Your task to perform on an android device: change the clock style Image 0: 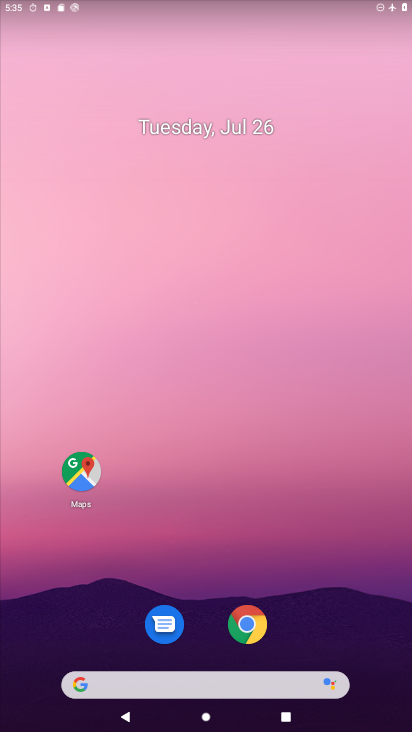
Step 0: drag from (209, 683) to (282, 11)
Your task to perform on an android device: change the clock style Image 1: 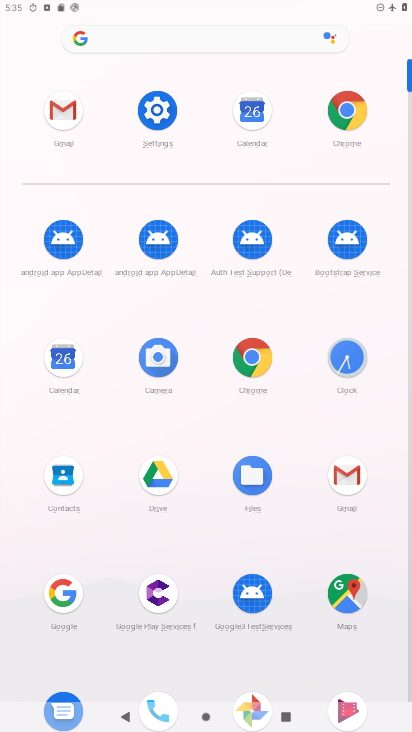
Step 1: click (339, 365)
Your task to perform on an android device: change the clock style Image 2: 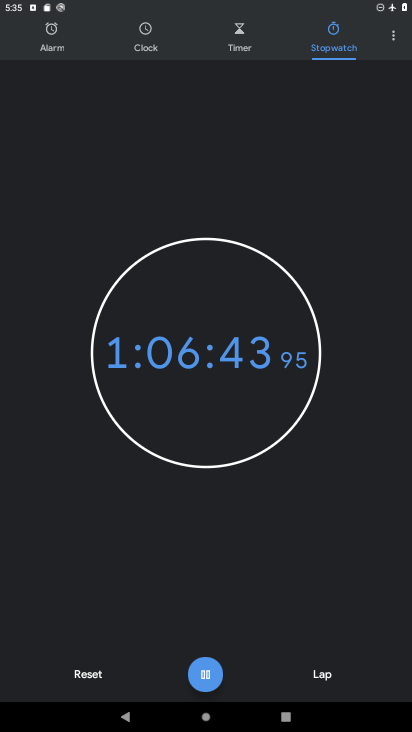
Step 2: click (396, 33)
Your task to perform on an android device: change the clock style Image 3: 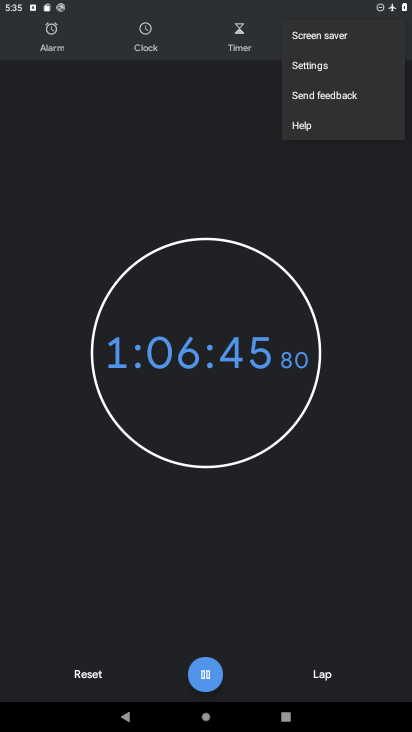
Step 3: click (321, 63)
Your task to perform on an android device: change the clock style Image 4: 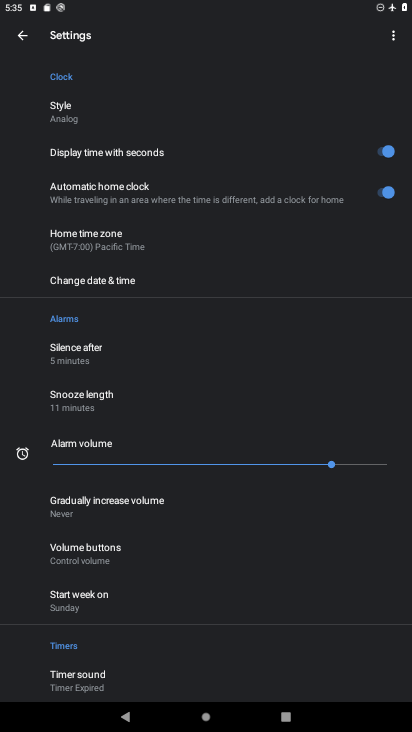
Step 4: click (100, 118)
Your task to perform on an android device: change the clock style Image 5: 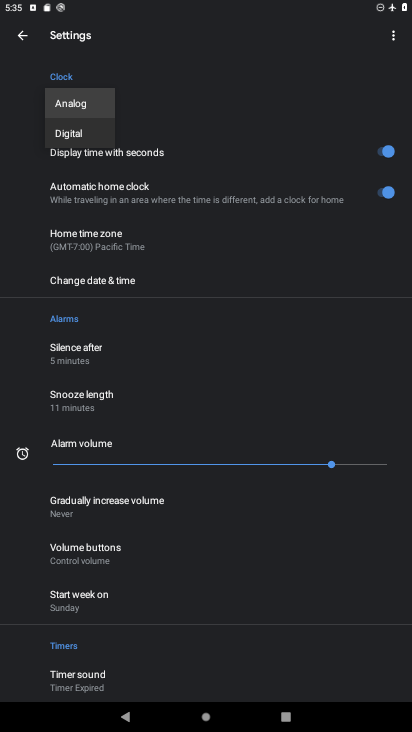
Step 5: click (58, 134)
Your task to perform on an android device: change the clock style Image 6: 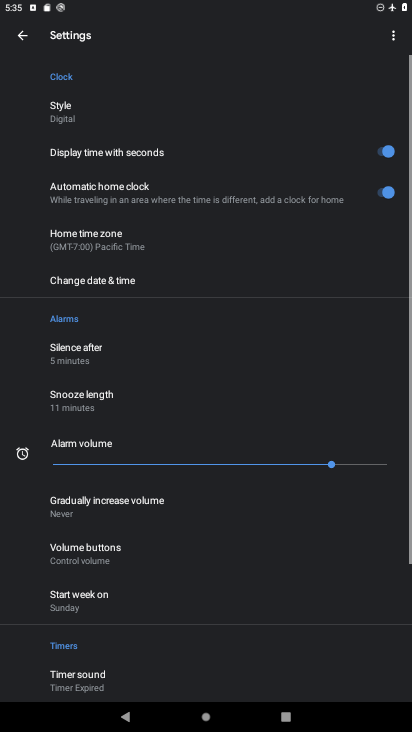
Step 6: task complete